Your task to perform on an android device: open app "HBO Max: Stream TV & Movies" (install if not already installed) and enter user name: "faring@outlook.com" and password: "appropriately" Image 0: 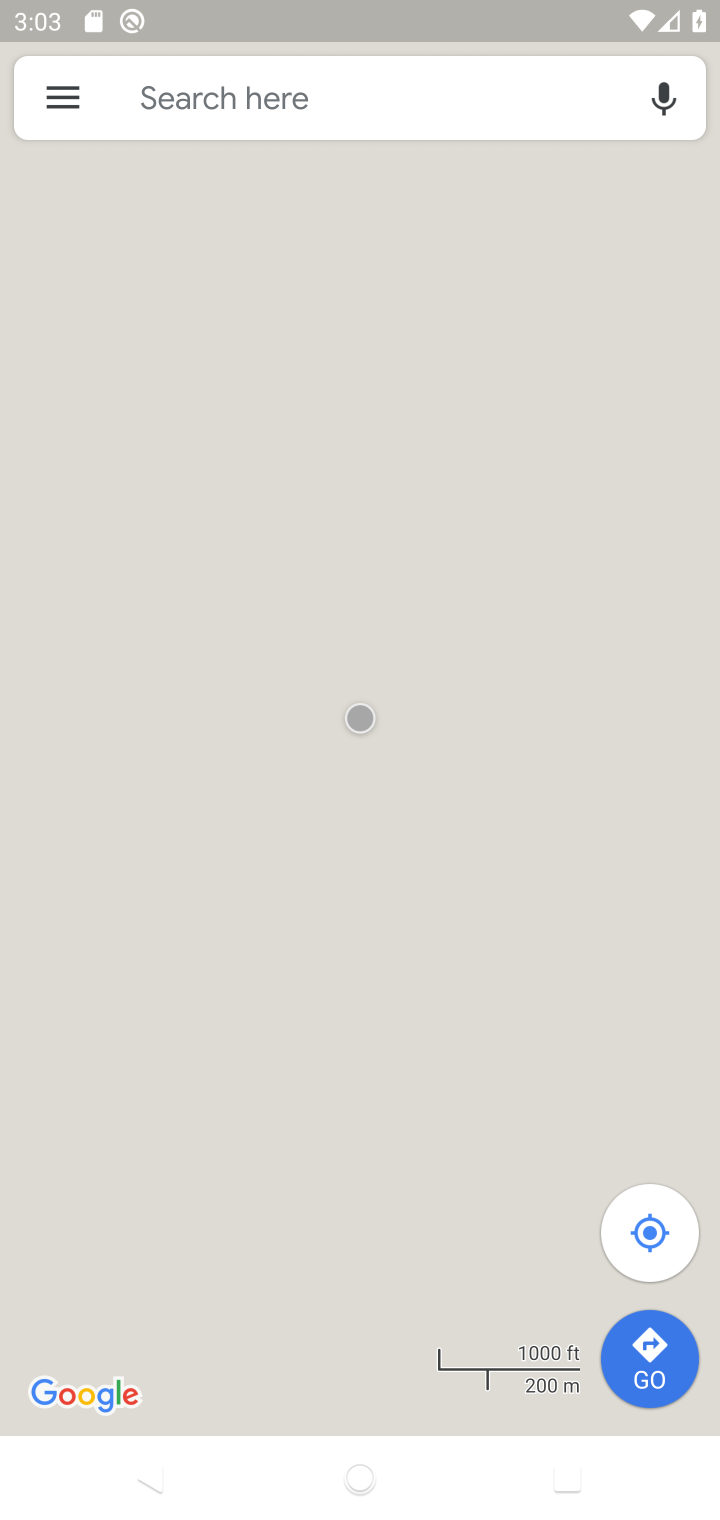
Step 0: press home button
Your task to perform on an android device: open app "HBO Max: Stream TV & Movies" (install if not already installed) and enter user name: "faring@outlook.com" and password: "appropriately" Image 1: 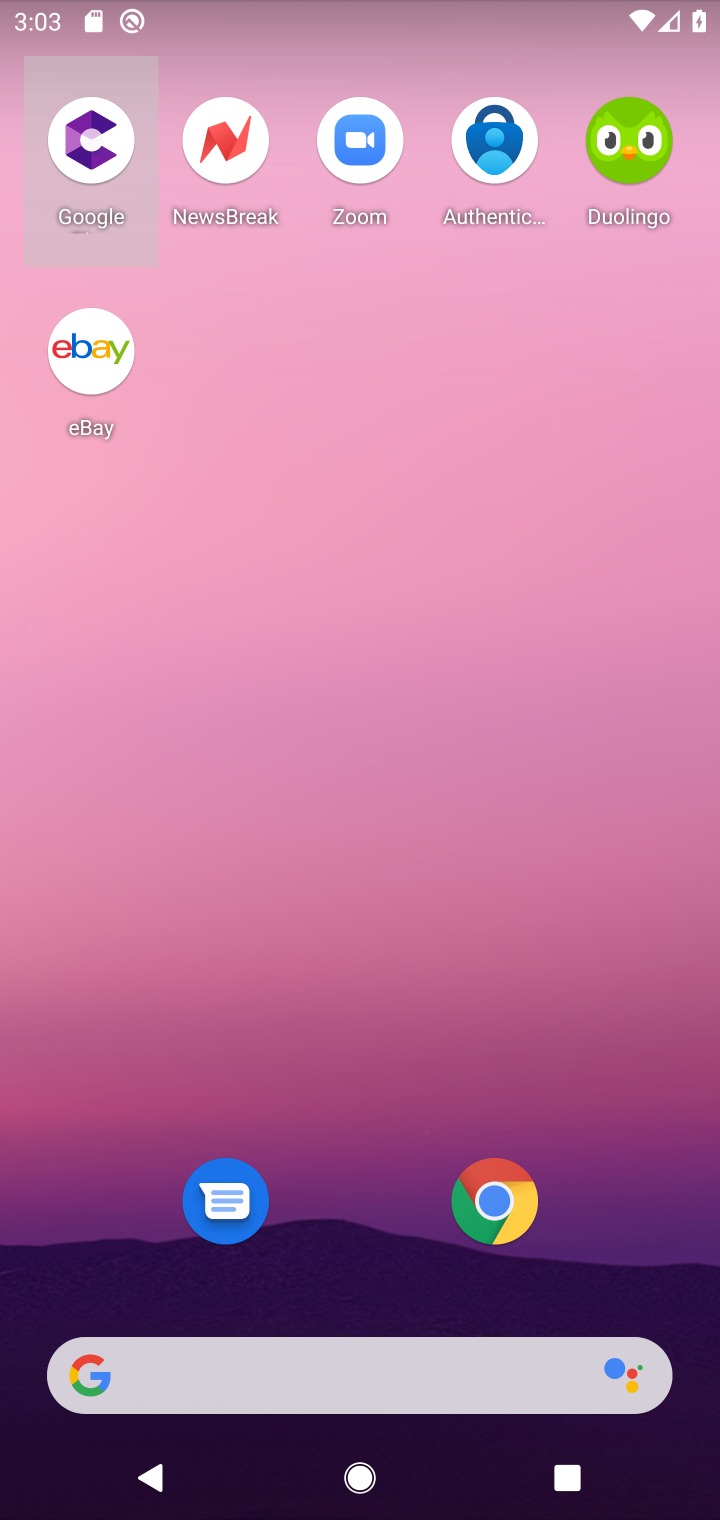
Step 1: drag from (684, 1316) to (569, 314)
Your task to perform on an android device: open app "HBO Max: Stream TV & Movies" (install if not already installed) and enter user name: "faring@outlook.com" and password: "appropriately" Image 2: 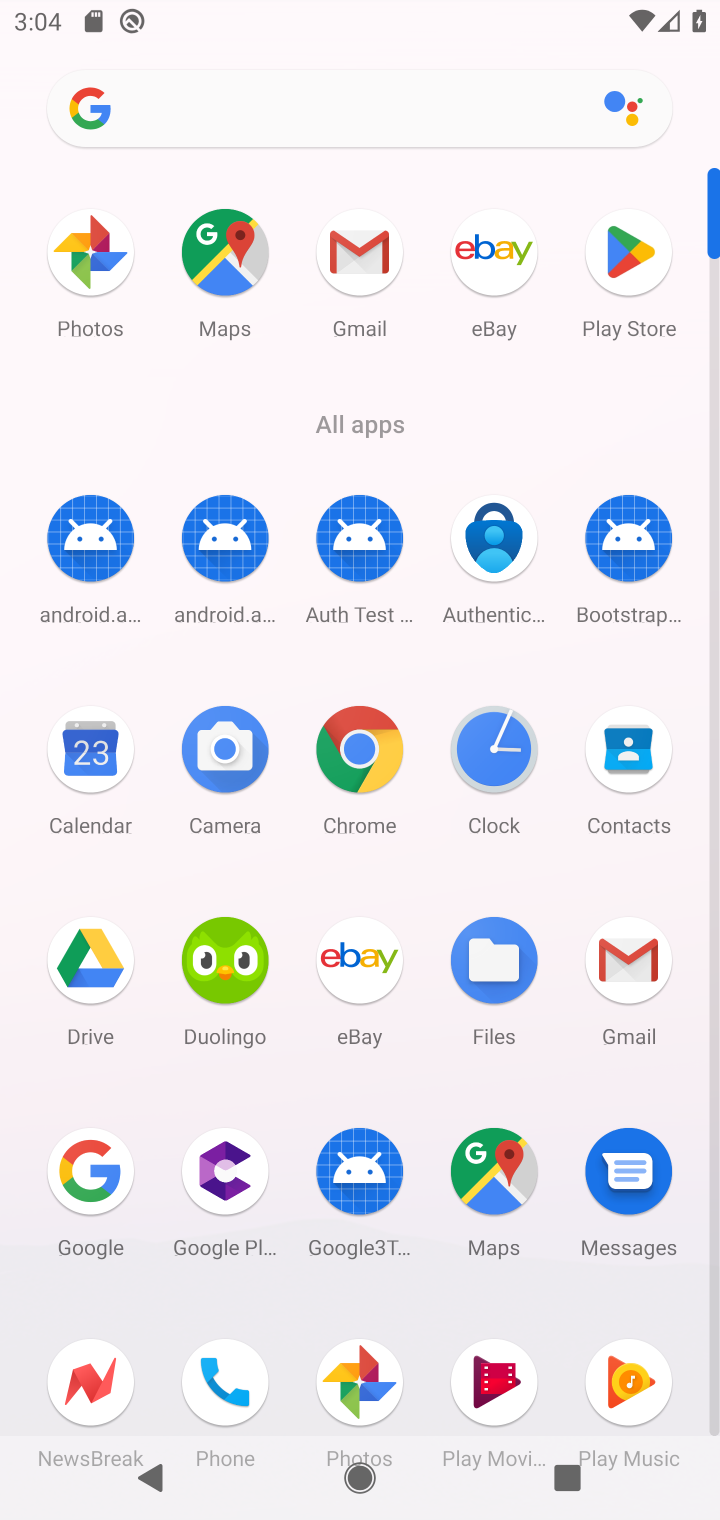
Step 2: click (715, 1408)
Your task to perform on an android device: open app "HBO Max: Stream TV & Movies" (install if not already installed) and enter user name: "faring@outlook.com" and password: "appropriately" Image 3: 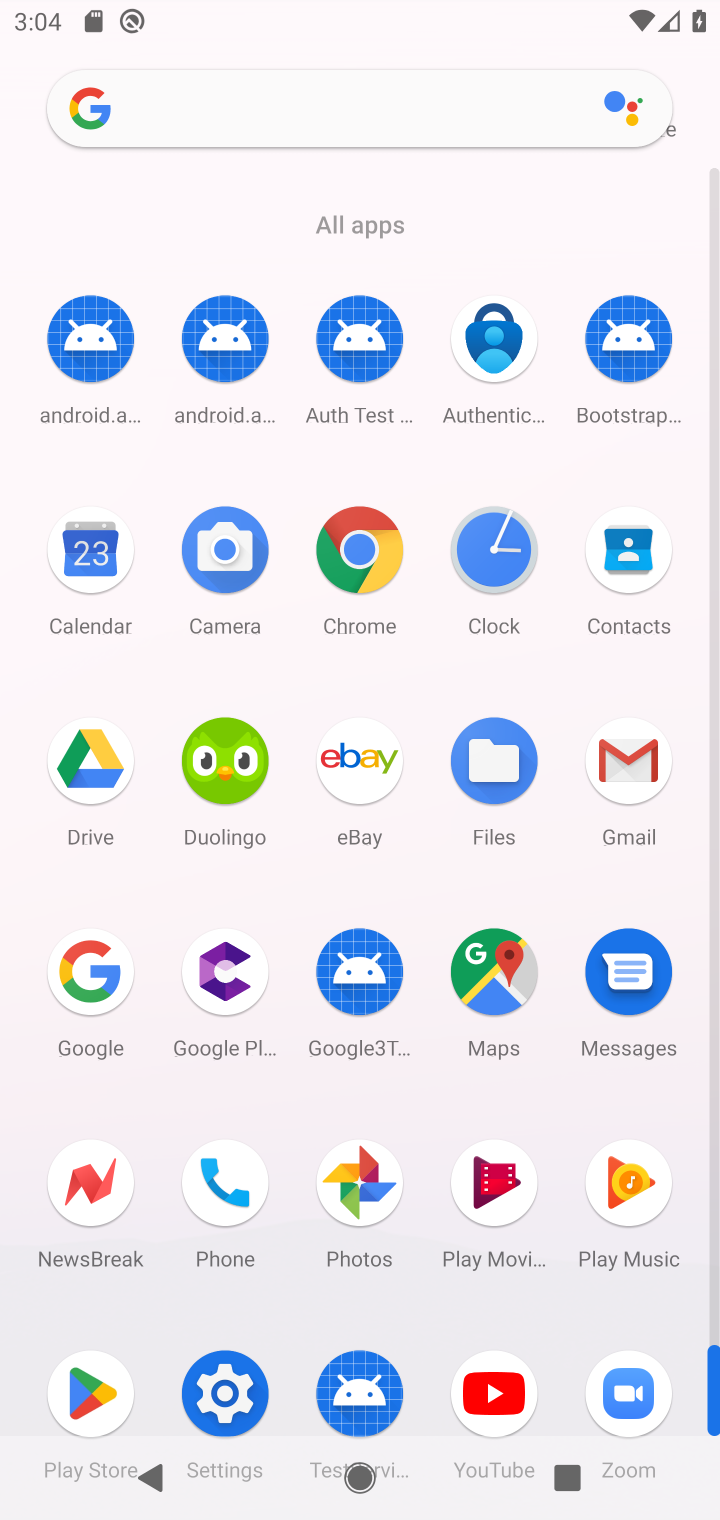
Step 3: click (92, 1388)
Your task to perform on an android device: open app "HBO Max: Stream TV & Movies" (install if not already installed) and enter user name: "faring@outlook.com" and password: "appropriately" Image 4: 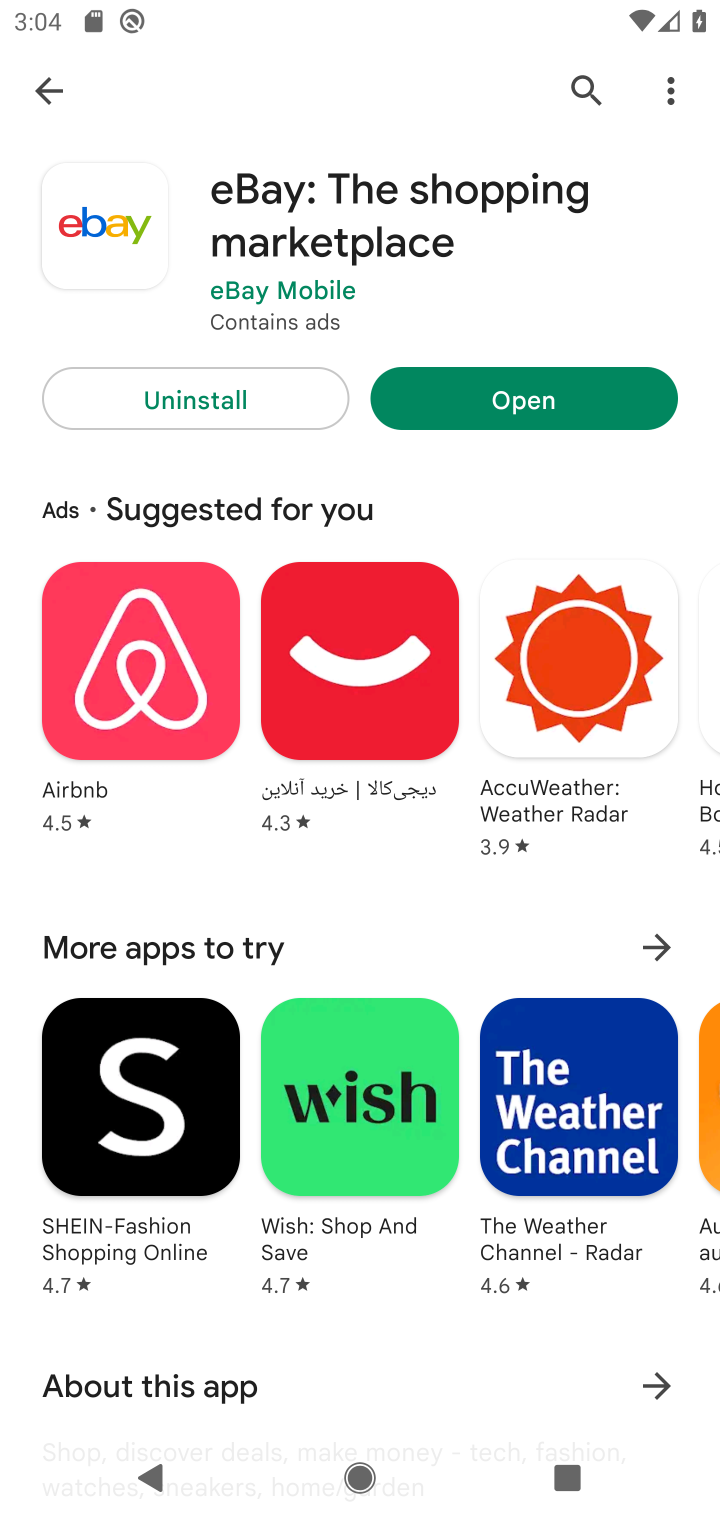
Step 4: click (583, 89)
Your task to perform on an android device: open app "HBO Max: Stream TV & Movies" (install if not already installed) and enter user name: "faring@outlook.com" and password: "appropriately" Image 5: 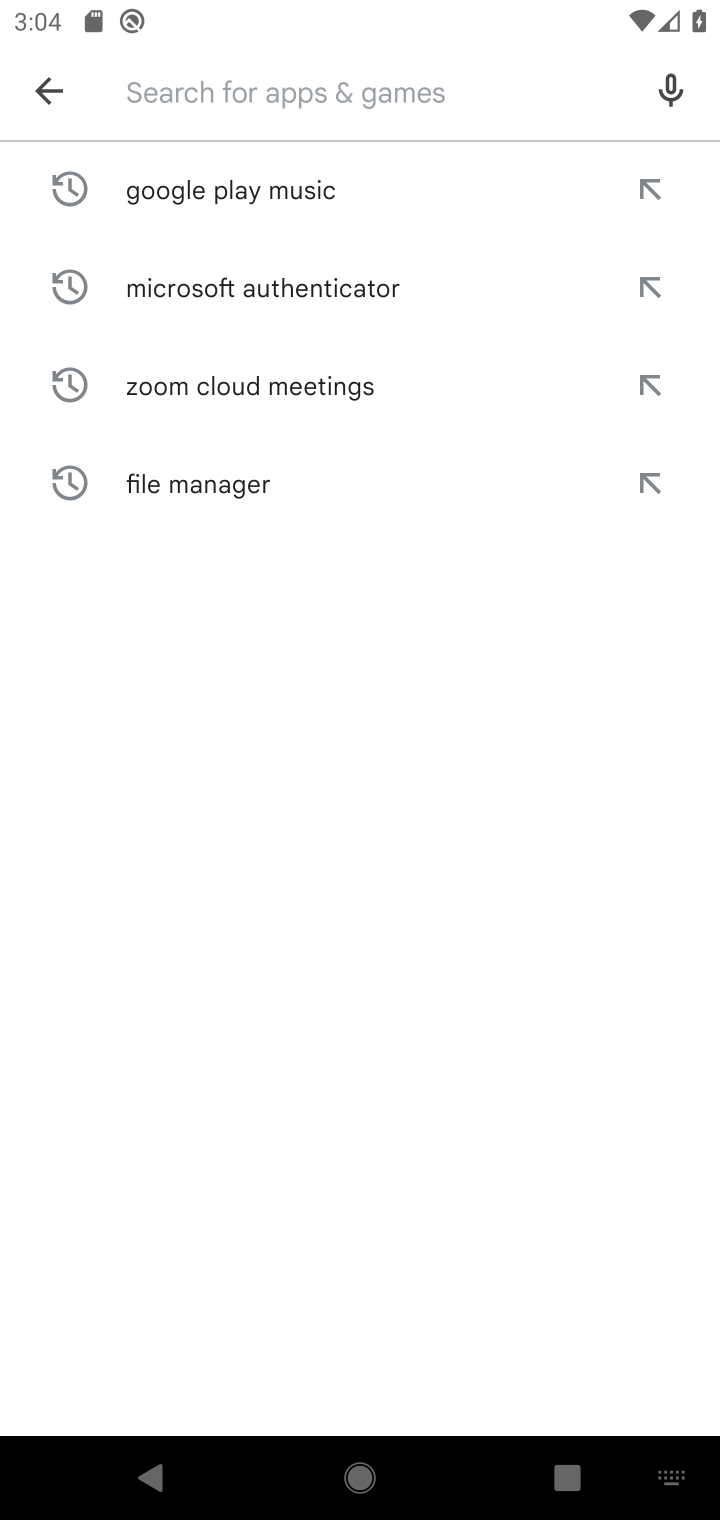
Step 5: type "HBO Max: Stream TV & Movies"
Your task to perform on an android device: open app "HBO Max: Stream TV & Movies" (install if not already installed) and enter user name: "faring@outlook.com" and password: "appropriately" Image 6: 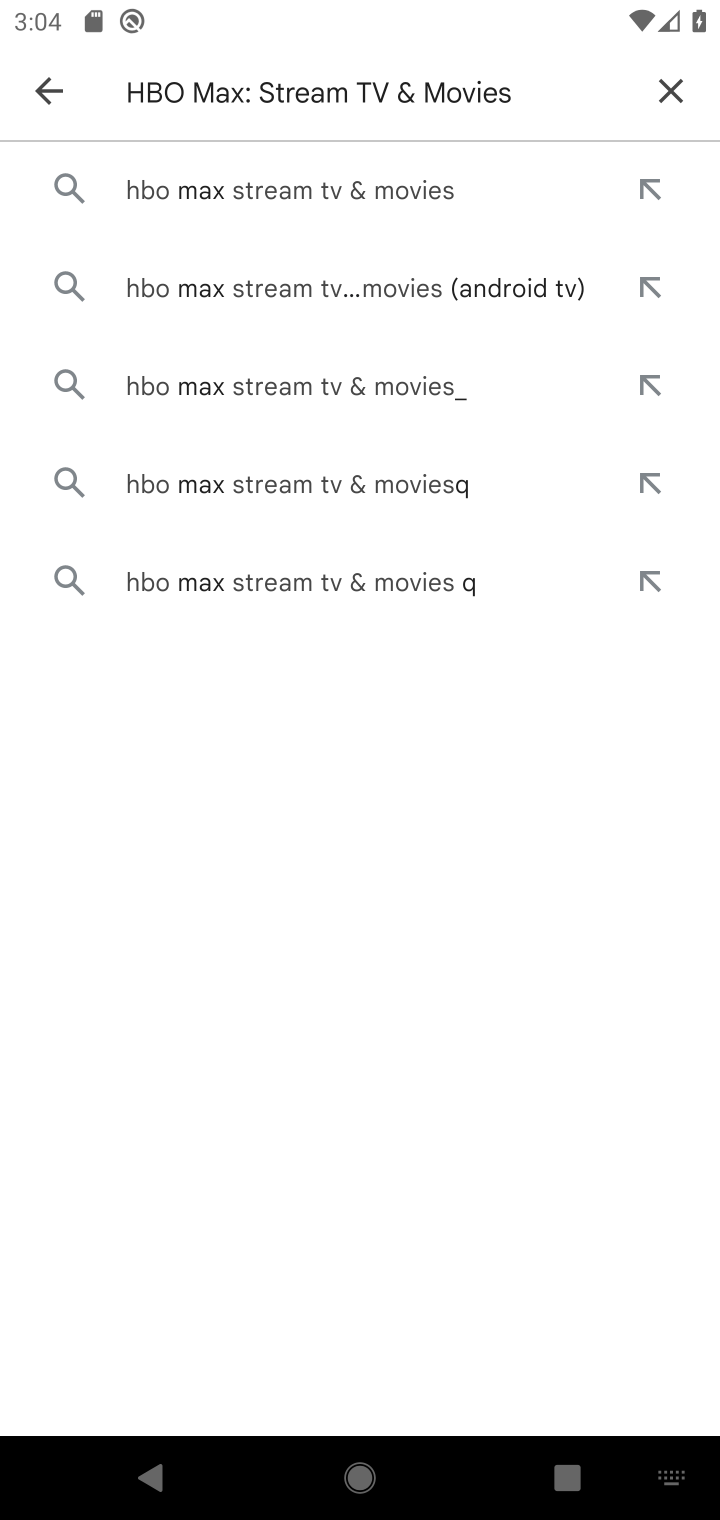
Step 6: click (264, 195)
Your task to perform on an android device: open app "HBO Max: Stream TV & Movies" (install if not already installed) and enter user name: "faring@outlook.com" and password: "appropriately" Image 7: 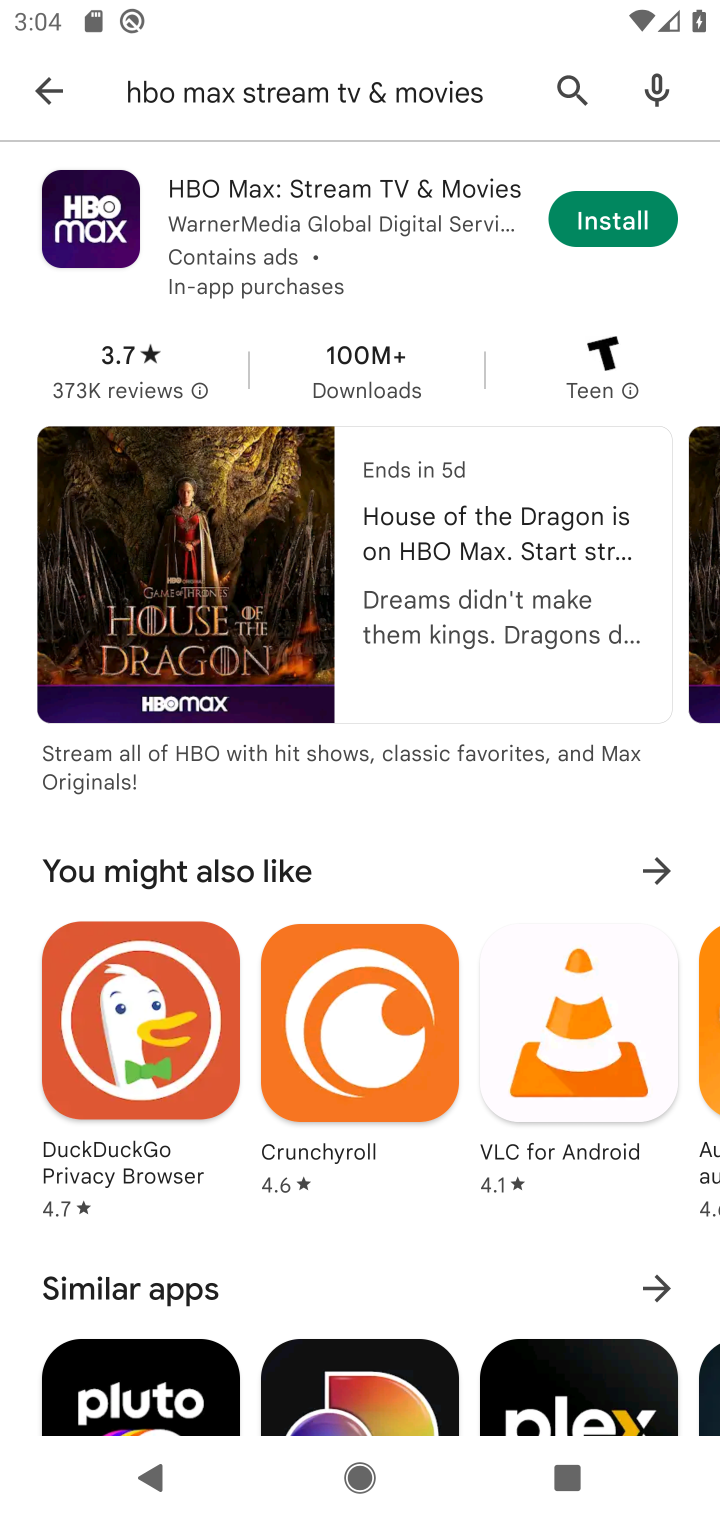
Step 7: click (255, 201)
Your task to perform on an android device: open app "HBO Max: Stream TV & Movies" (install if not already installed) and enter user name: "faring@outlook.com" and password: "appropriately" Image 8: 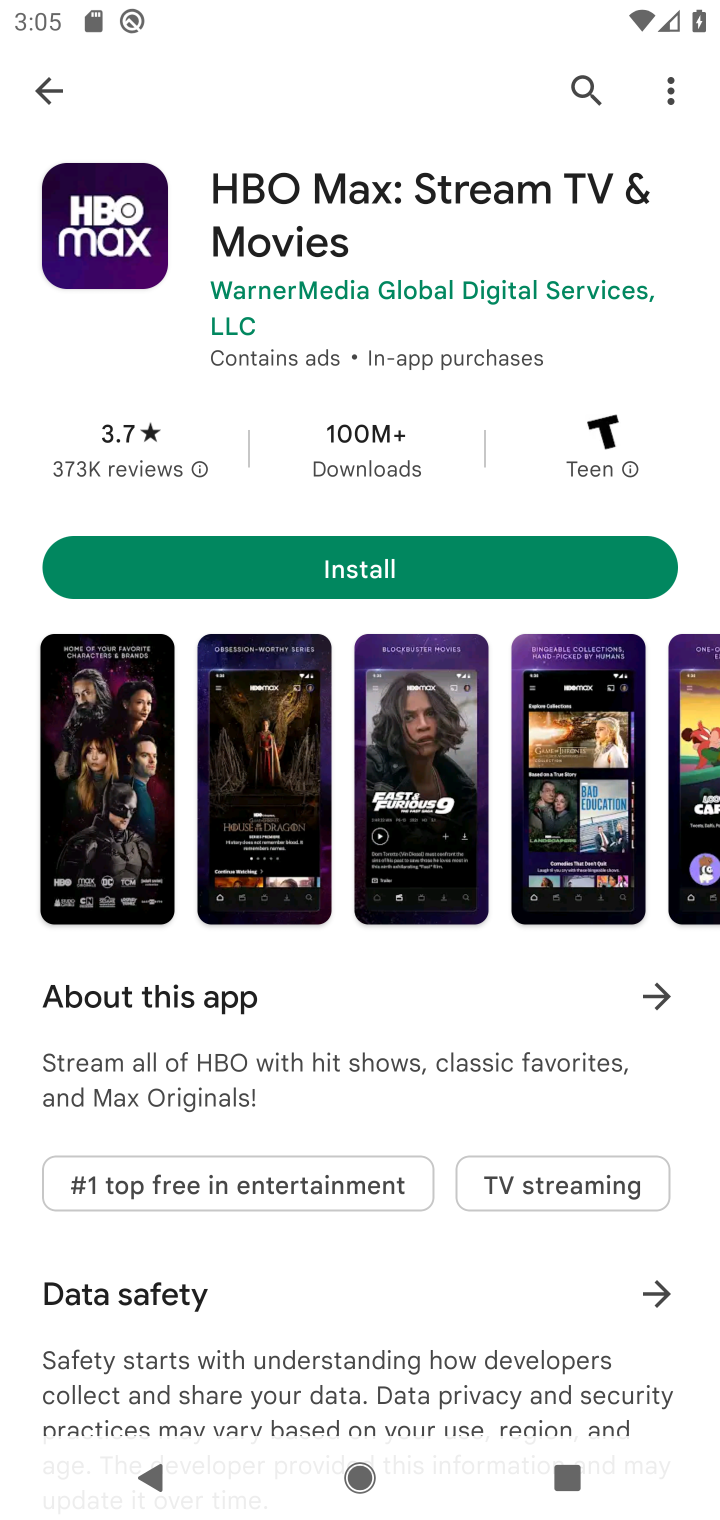
Step 8: click (362, 567)
Your task to perform on an android device: open app "HBO Max: Stream TV & Movies" (install if not already installed) and enter user name: "faring@outlook.com" and password: "appropriately" Image 9: 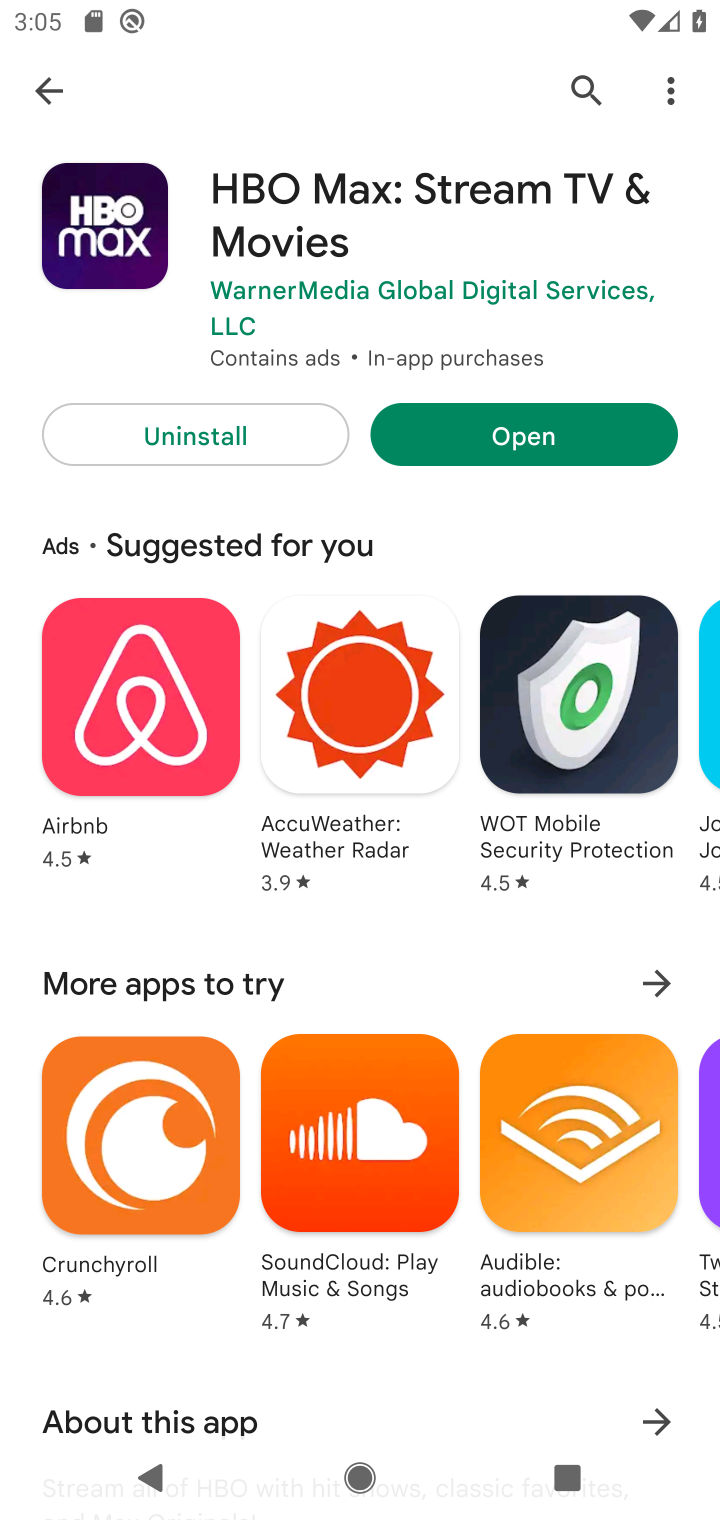
Step 9: click (522, 448)
Your task to perform on an android device: open app "HBO Max: Stream TV & Movies" (install if not already installed) and enter user name: "faring@outlook.com" and password: "appropriately" Image 10: 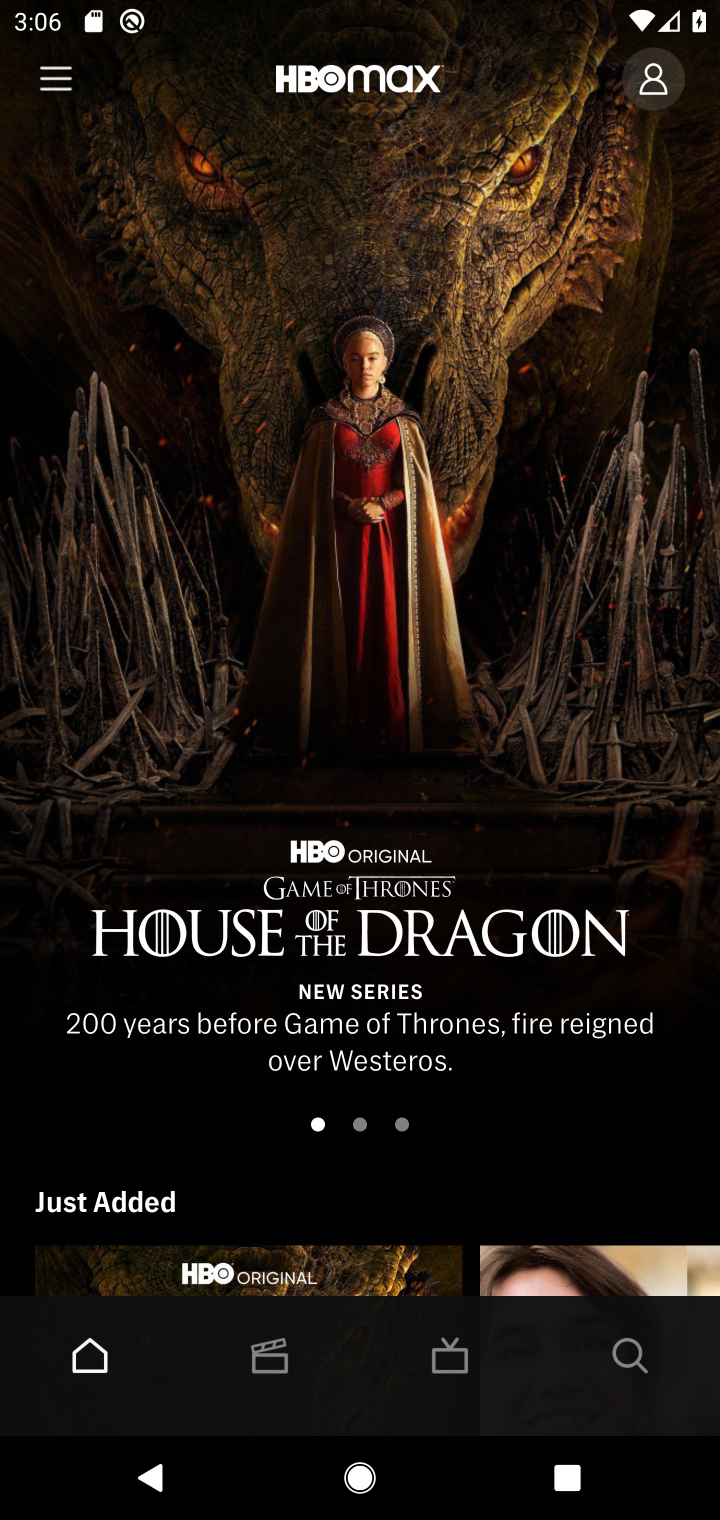
Step 10: click (654, 89)
Your task to perform on an android device: open app "HBO Max: Stream TV & Movies" (install if not already installed) and enter user name: "faring@outlook.com" and password: "appropriately" Image 11: 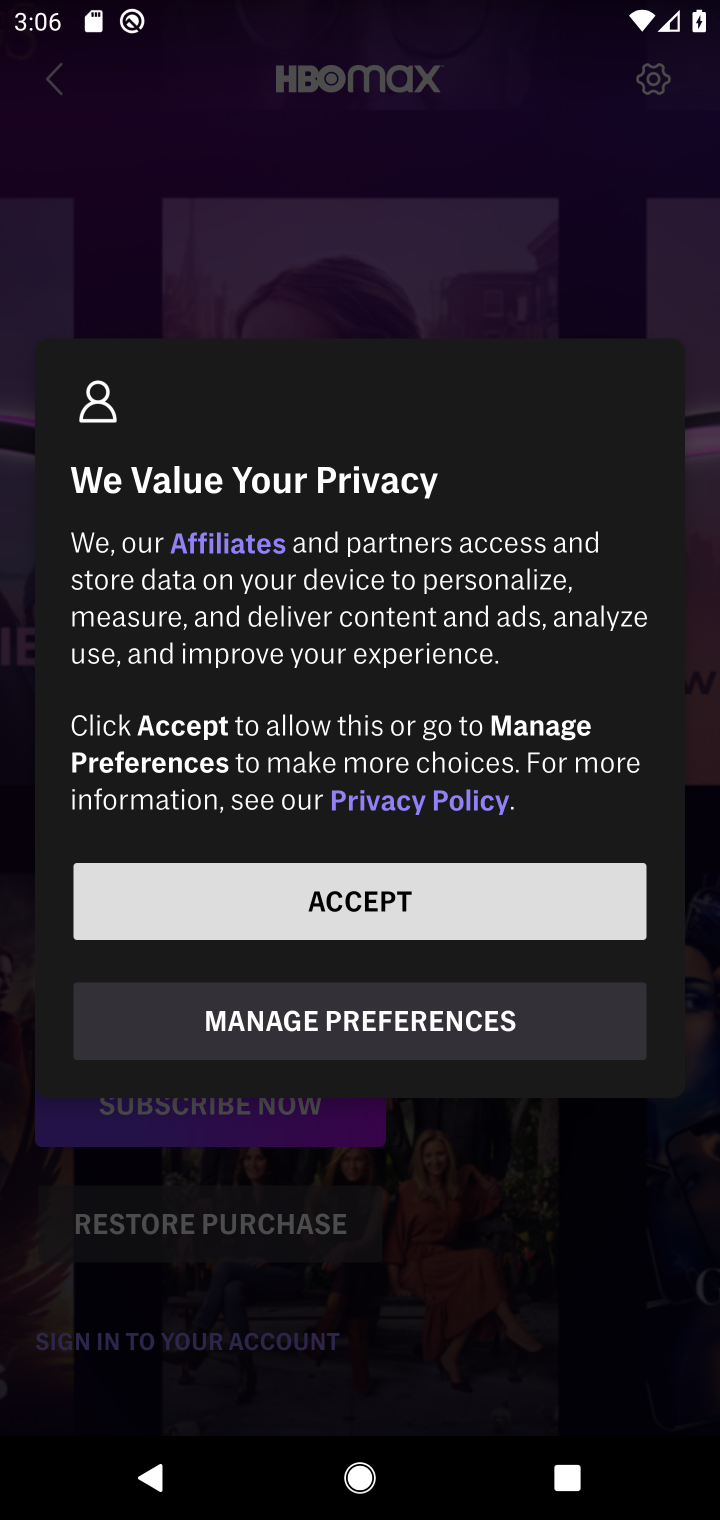
Step 11: click (360, 898)
Your task to perform on an android device: open app "HBO Max: Stream TV & Movies" (install if not already installed) and enter user name: "faring@outlook.com" and password: "appropriately" Image 12: 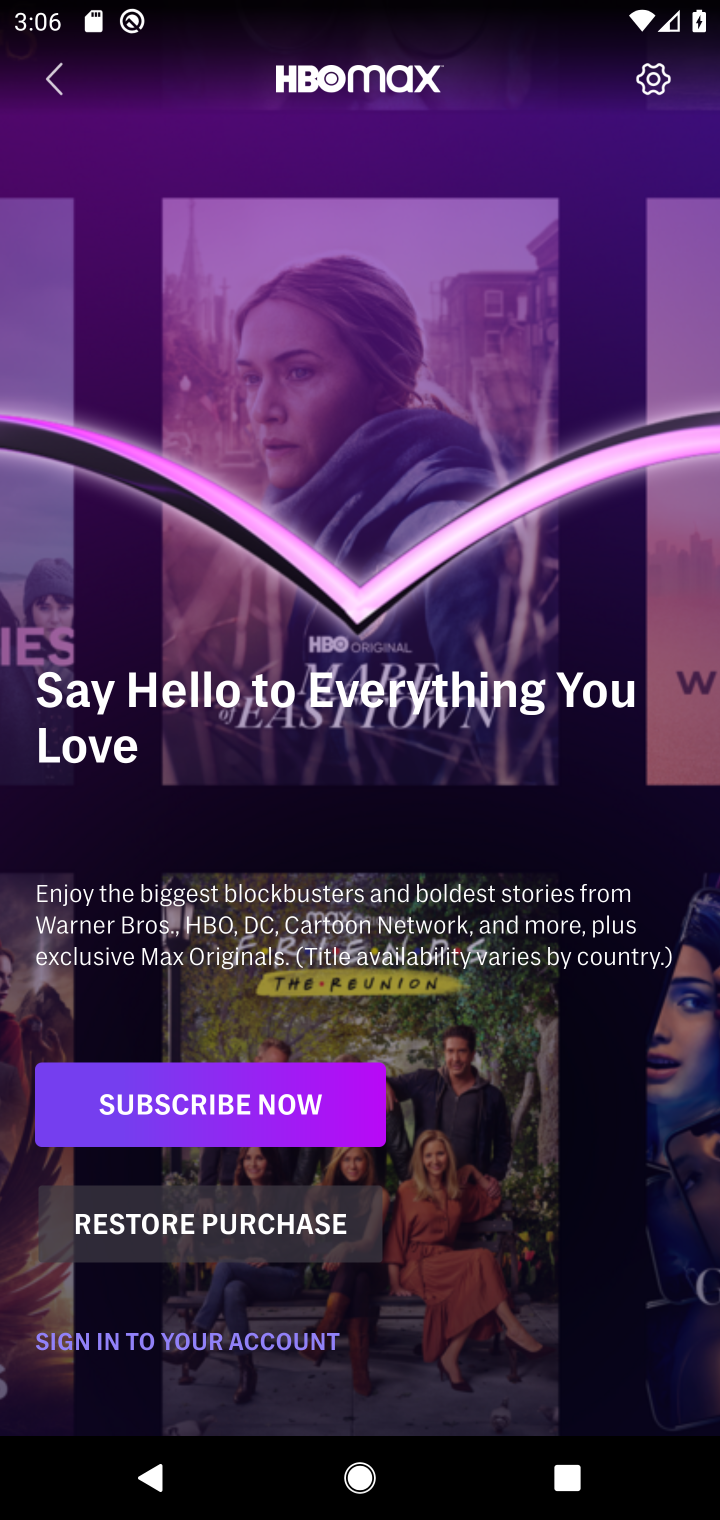
Step 12: click (165, 1345)
Your task to perform on an android device: open app "HBO Max: Stream TV & Movies" (install if not already installed) and enter user name: "faring@outlook.com" and password: "appropriately" Image 13: 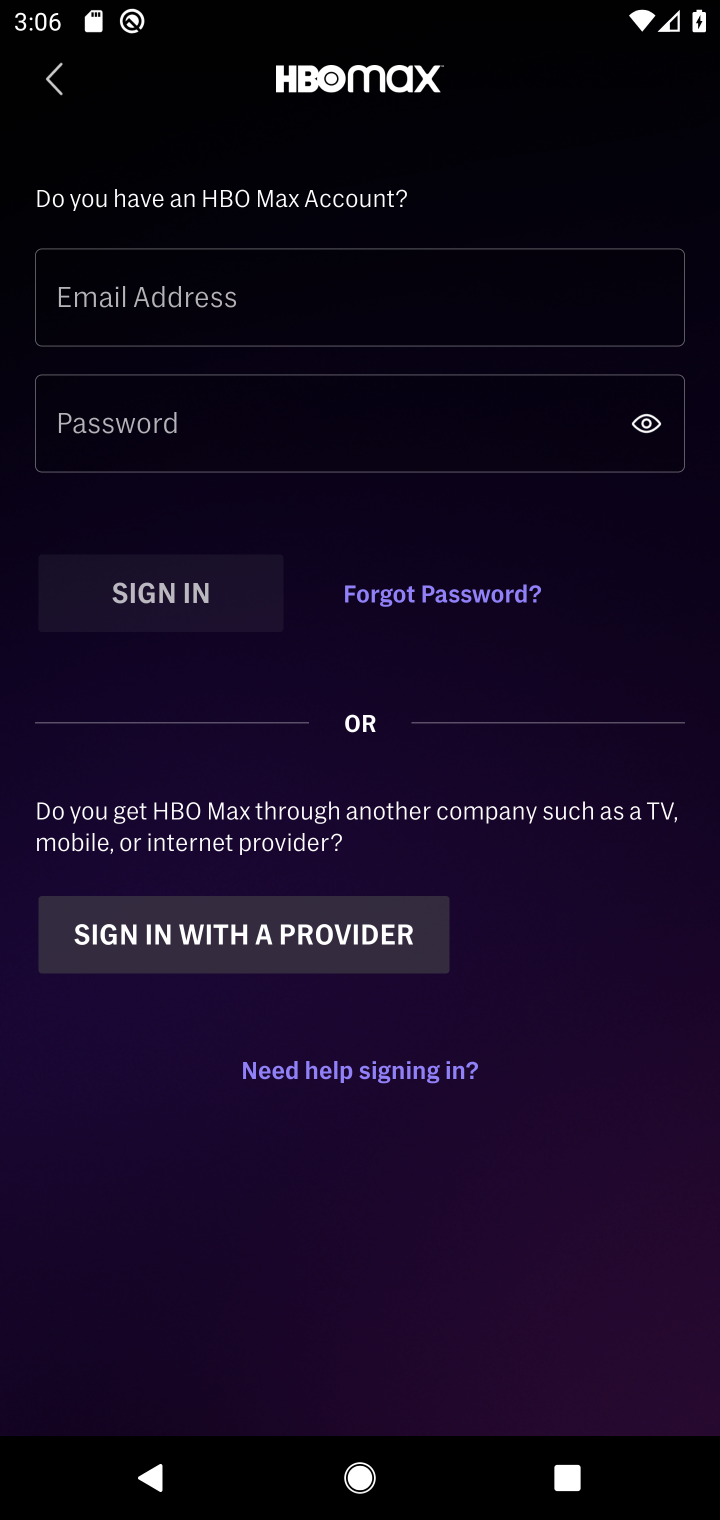
Step 13: click (180, 279)
Your task to perform on an android device: open app "HBO Max: Stream TV & Movies" (install if not already installed) and enter user name: "faring@outlook.com" and password: "appropriately" Image 14: 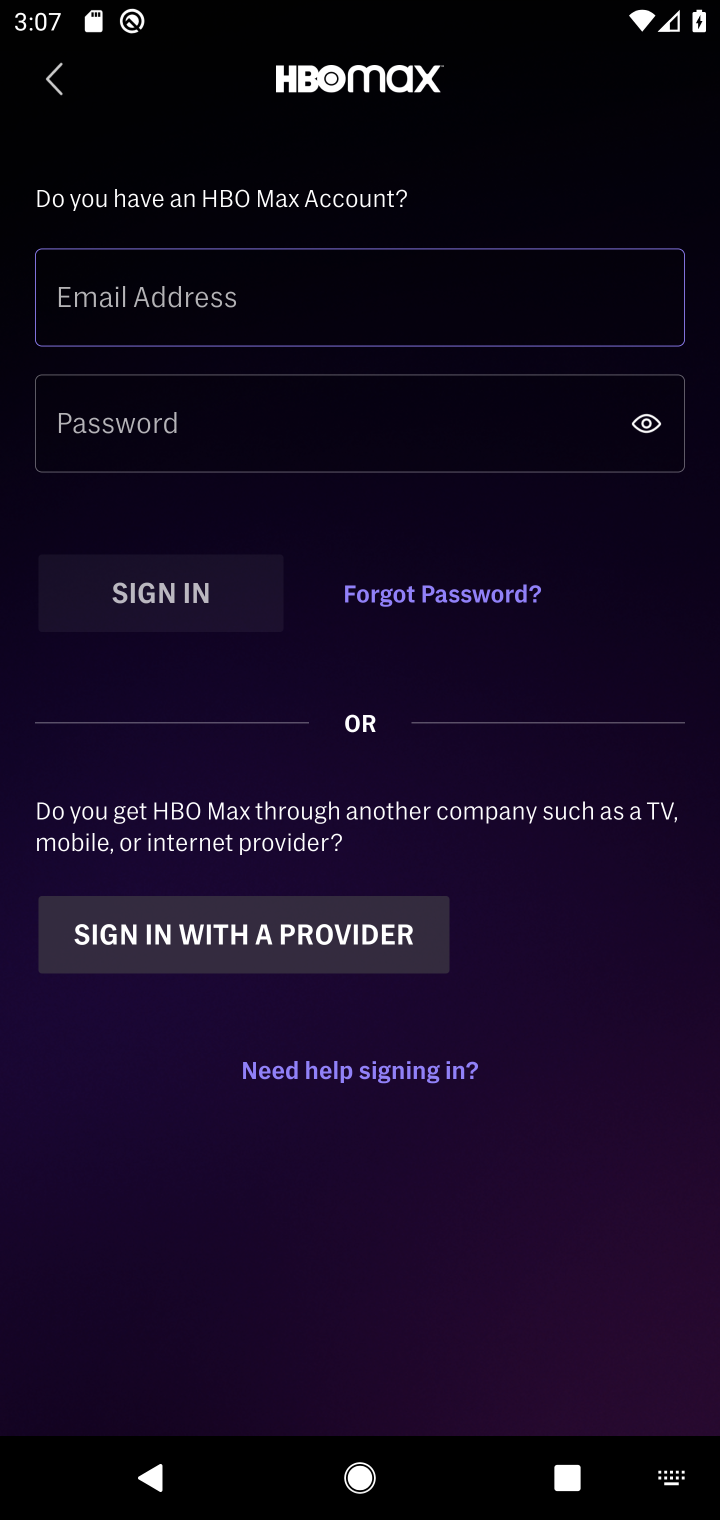
Step 14: type "faring@outlook.com"
Your task to perform on an android device: open app "HBO Max: Stream TV & Movies" (install if not already installed) and enter user name: "faring@outlook.com" and password: "appropriately" Image 15: 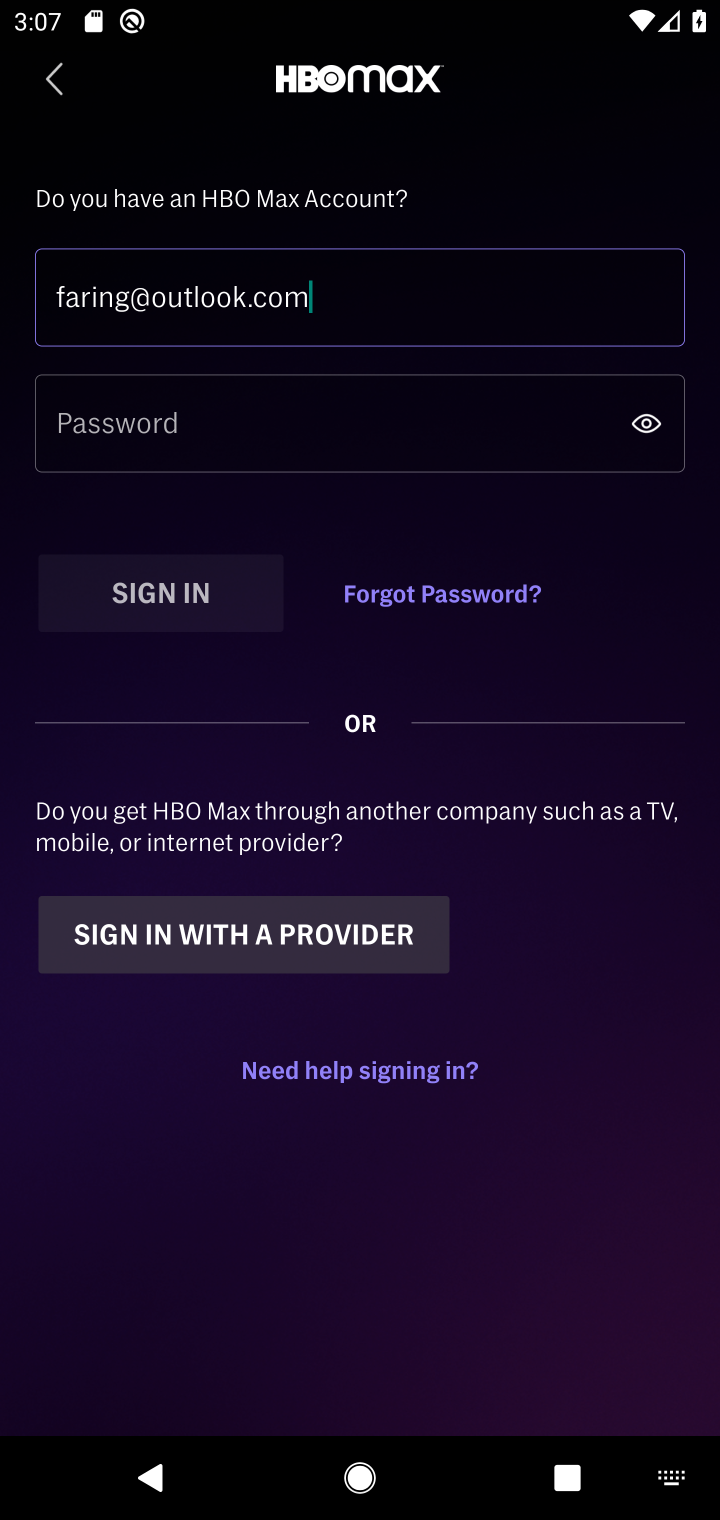
Step 15: click (128, 409)
Your task to perform on an android device: open app "HBO Max: Stream TV & Movies" (install if not already installed) and enter user name: "faring@outlook.com" and password: "appropriately" Image 16: 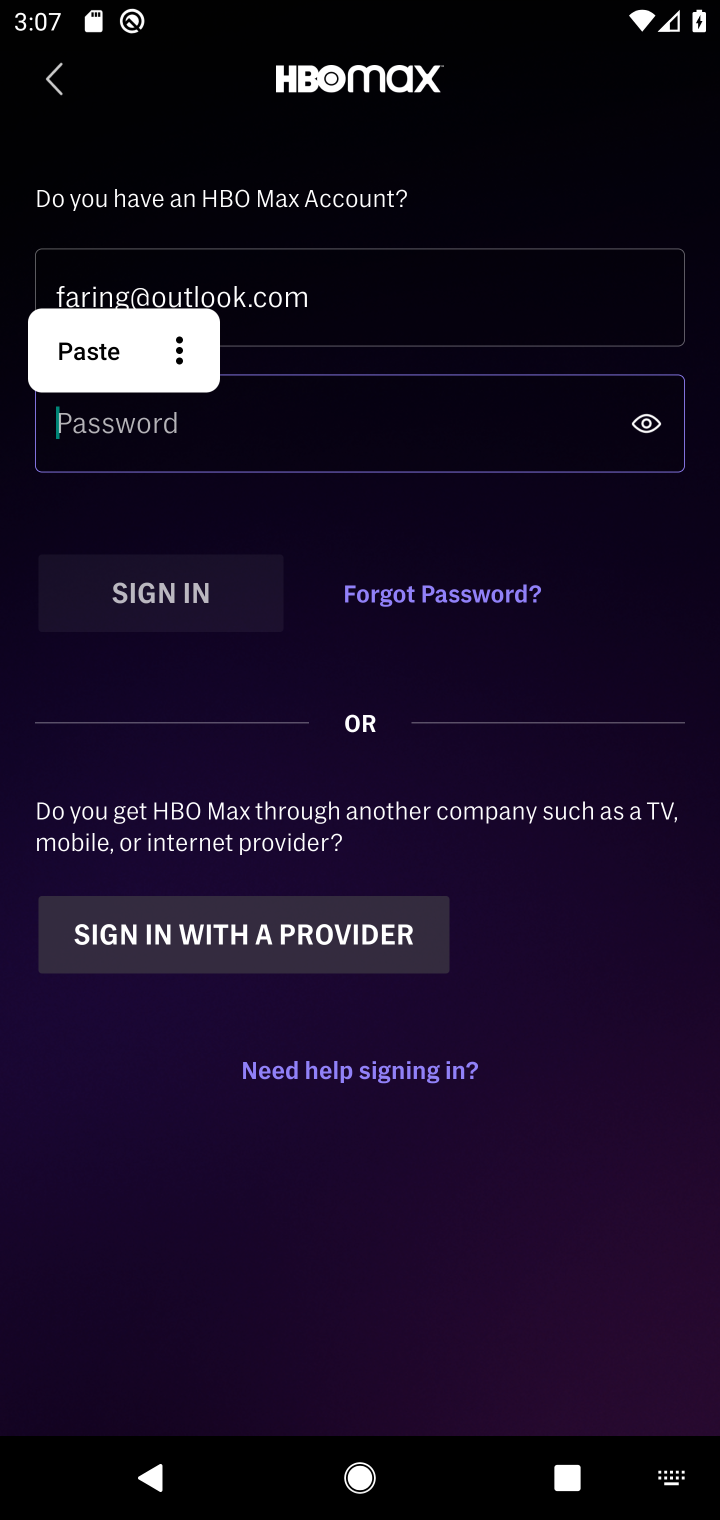
Step 16: type "appropriately"
Your task to perform on an android device: open app "HBO Max: Stream TV & Movies" (install if not already installed) and enter user name: "faring@outlook.com" and password: "appropriately" Image 17: 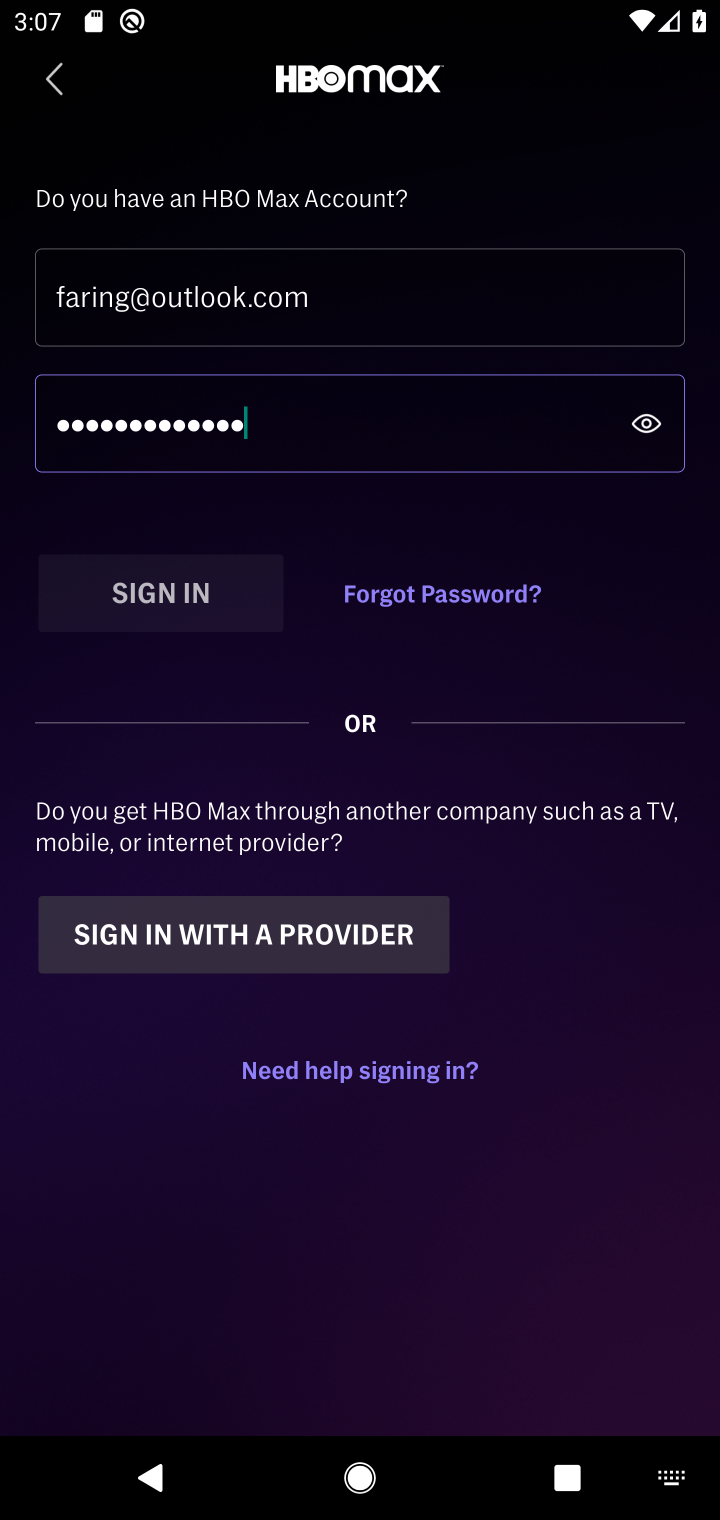
Step 17: task complete